Your task to perform on an android device: move a message to another label in the gmail app Image 0: 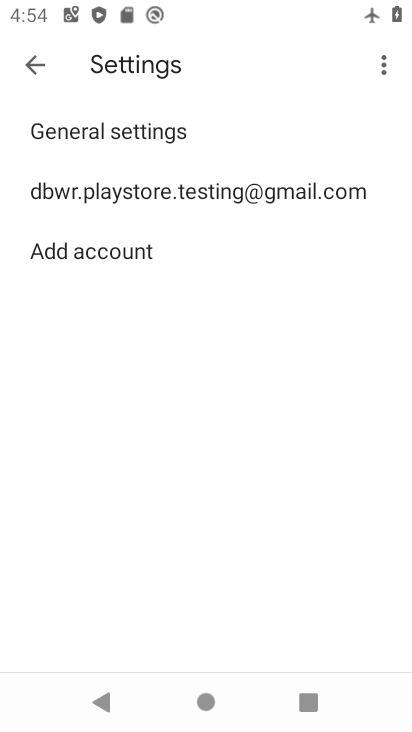
Step 0: press home button
Your task to perform on an android device: move a message to another label in the gmail app Image 1: 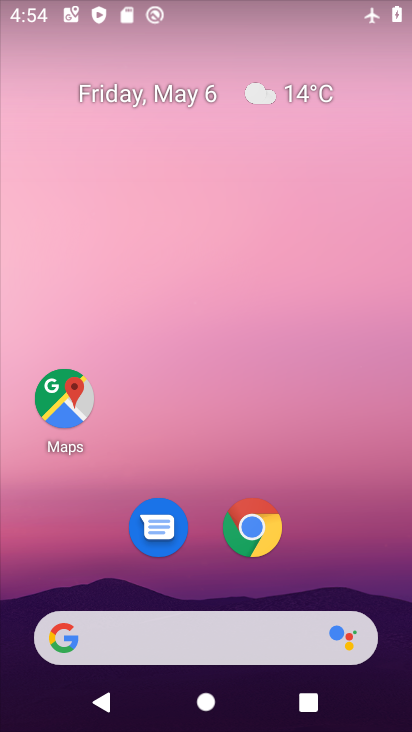
Step 1: drag from (238, 729) to (243, 115)
Your task to perform on an android device: move a message to another label in the gmail app Image 2: 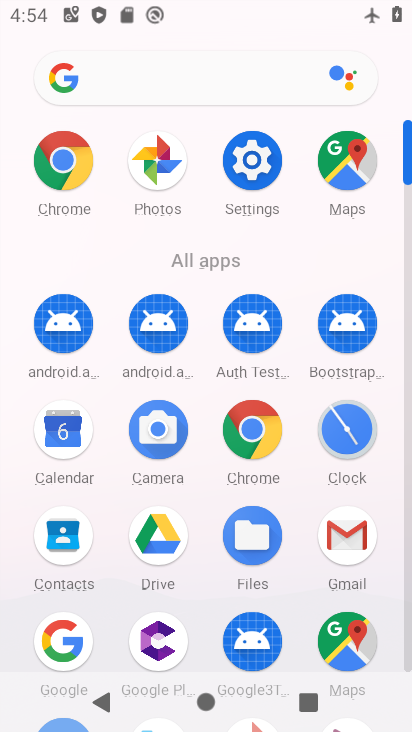
Step 2: click (357, 532)
Your task to perform on an android device: move a message to another label in the gmail app Image 3: 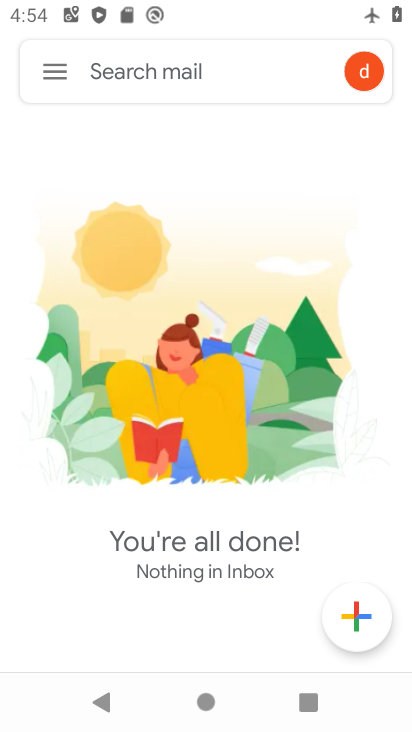
Step 3: task complete